Your task to perform on an android device: Open my contact list Image 0: 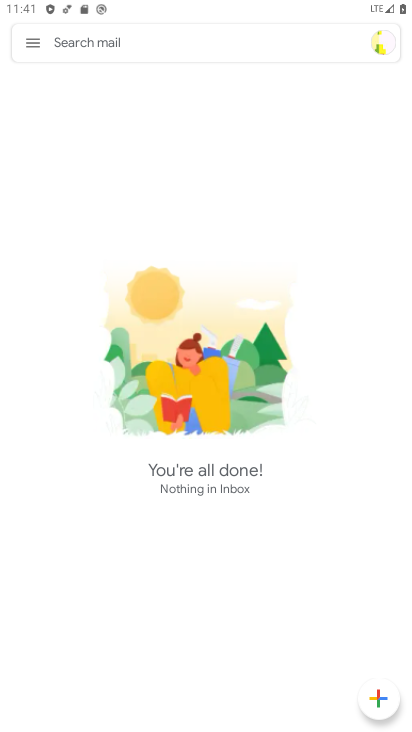
Step 0: press home button
Your task to perform on an android device: Open my contact list Image 1: 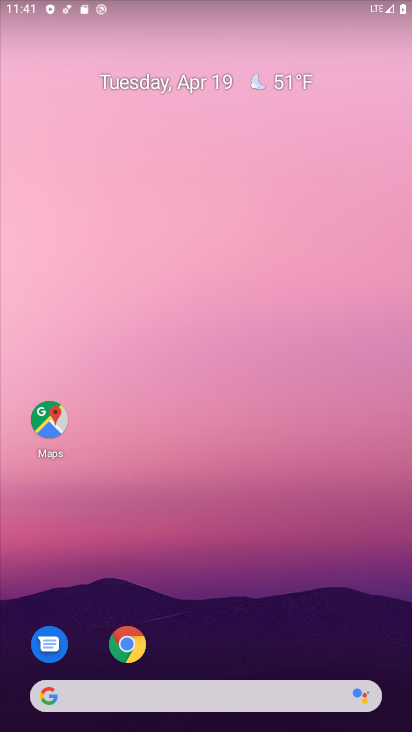
Step 1: drag from (204, 720) to (152, 243)
Your task to perform on an android device: Open my contact list Image 2: 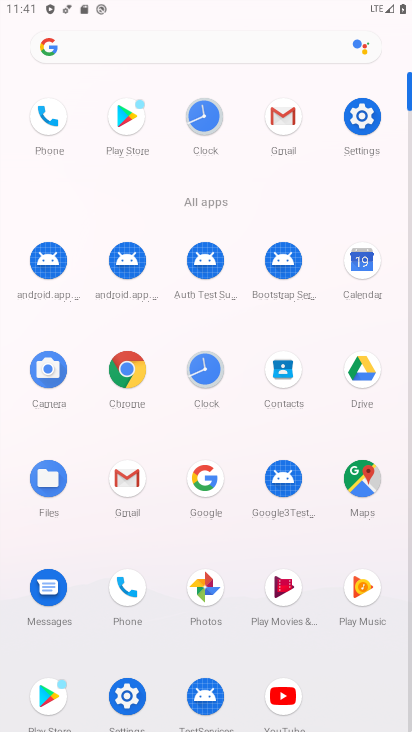
Step 2: click (283, 376)
Your task to perform on an android device: Open my contact list Image 3: 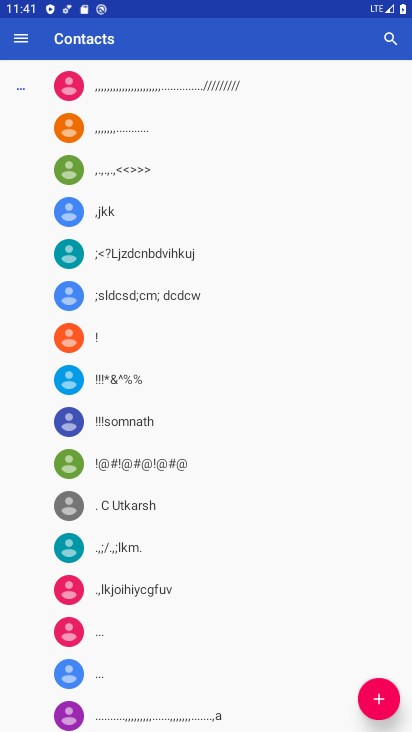
Step 3: task complete